Your task to perform on an android device: When is my next meeting? Image 0: 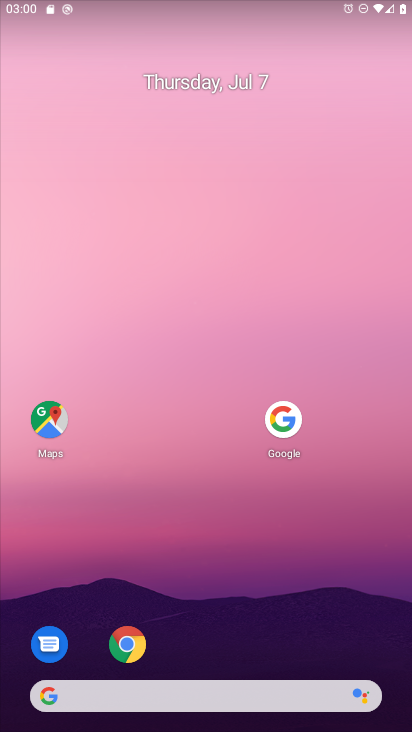
Step 0: drag from (228, 687) to (170, 184)
Your task to perform on an android device: When is my next meeting? Image 1: 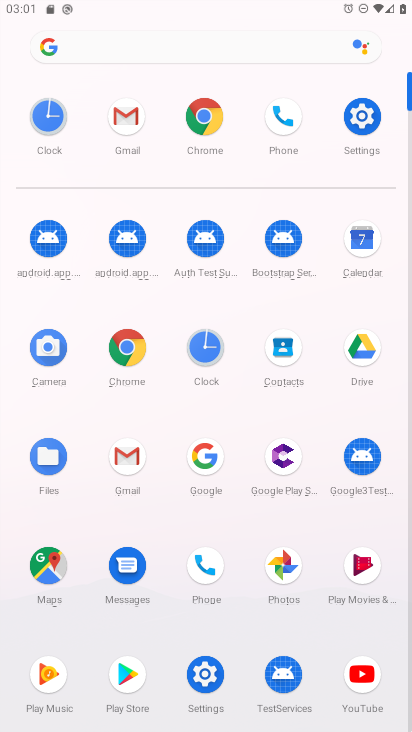
Step 1: click (364, 232)
Your task to perform on an android device: When is my next meeting? Image 2: 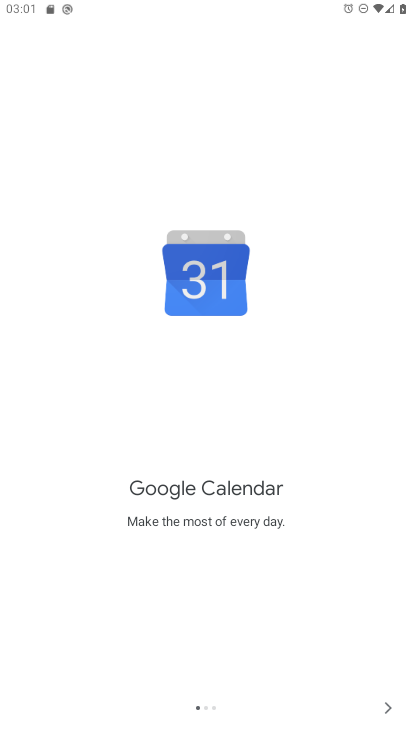
Step 2: click (384, 703)
Your task to perform on an android device: When is my next meeting? Image 3: 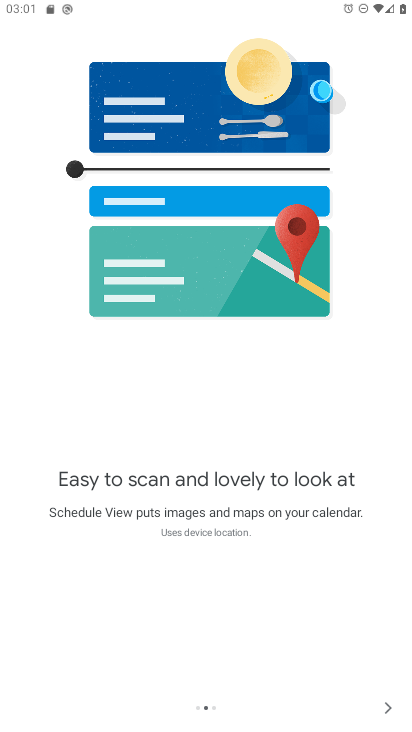
Step 3: click (383, 702)
Your task to perform on an android device: When is my next meeting? Image 4: 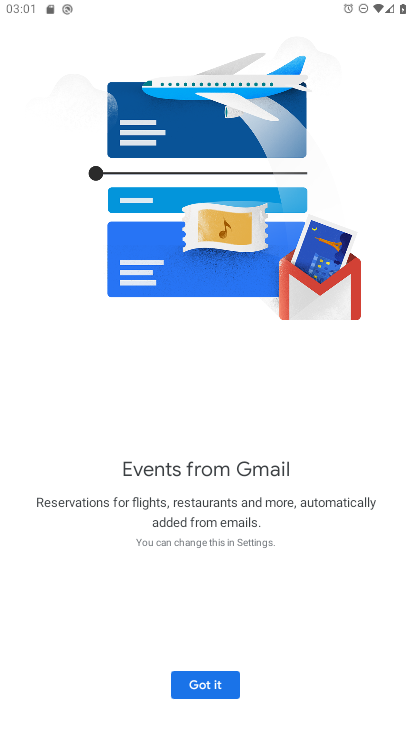
Step 4: click (200, 690)
Your task to perform on an android device: When is my next meeting? Image 5: 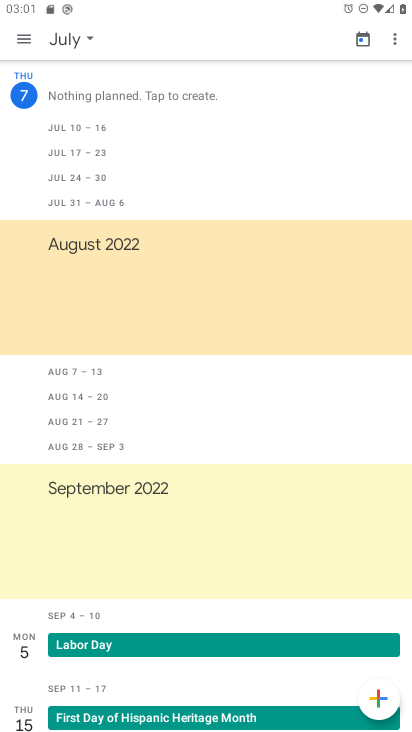
Step 5: click (22, 39)
Your task to perform on an android device: When is my next meeting? Image 6: 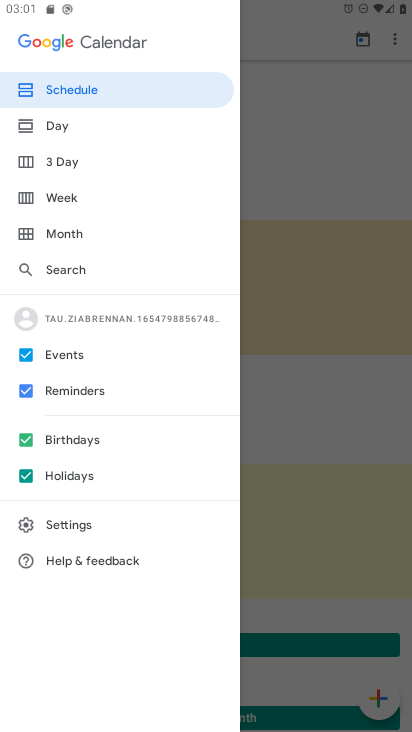
Step 6: click (64, 88)
Your task to perform on an android device: When is my next meeting? Image 7: 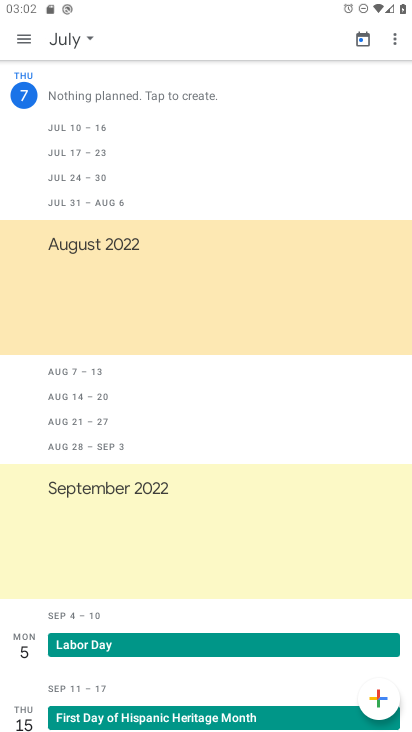
Step 7: task complete